Your task to perform on an android device: Open internet settings Image 0: 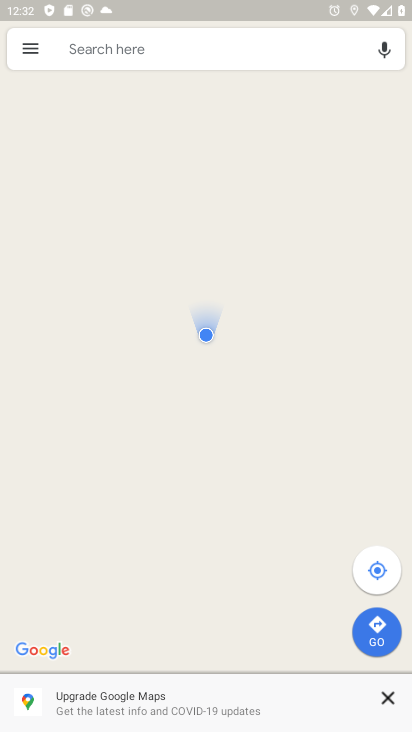
Step 0: press home button
Your task to perform on an android device: Open internet settings Image 1: 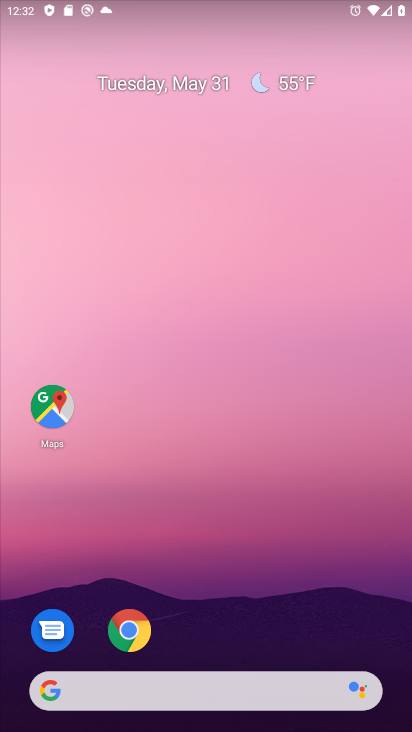
Step 1: drag from (180, 666) to (179, 337)
Your task to perform on an android device: Open internet settings Image 2: 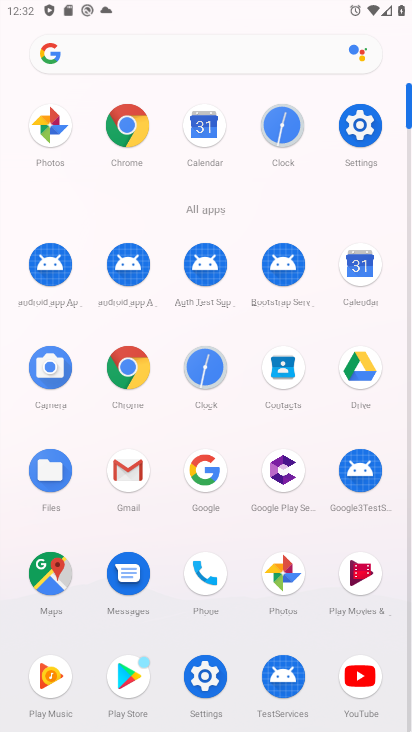
Step 2: click (357, 125)
Your task to perform on an android device: Open internet settings Image 3: 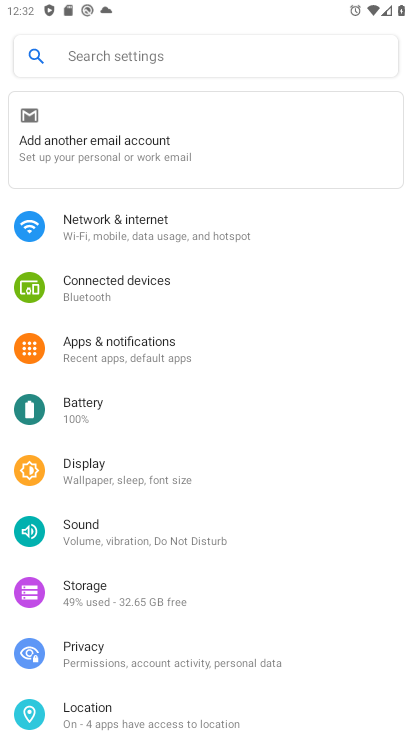
Step 3: click (129, 234)
Your task to perform on an android device: Open internet settings Image 4: 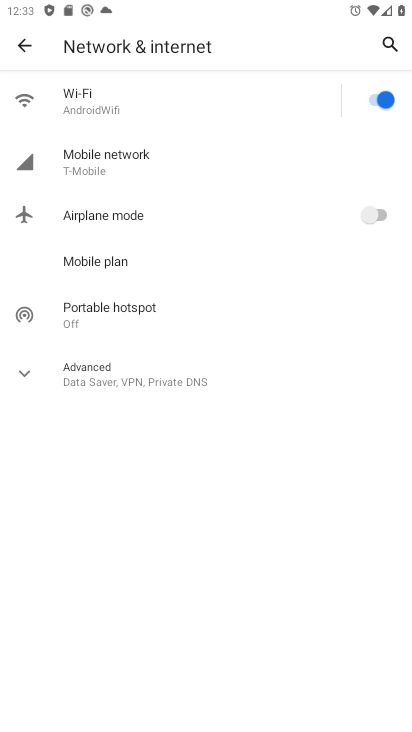
Step 4: click (129, 243)
Your task to perform on an android device: Open internet settings Image 5: 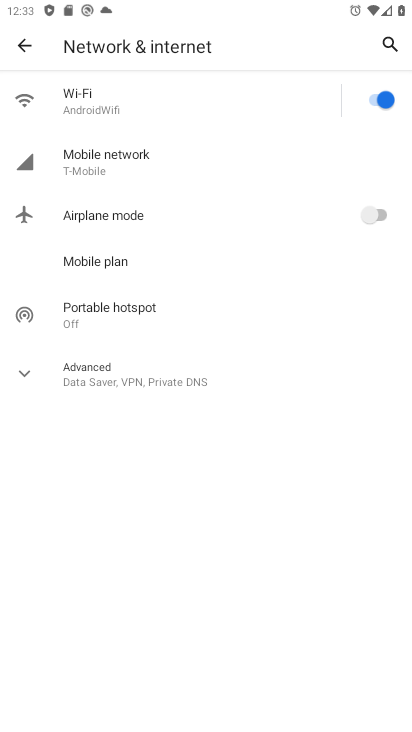
Step 5: click (103, 376)
Your task to perform on an android device: Open internet settings Image 6: 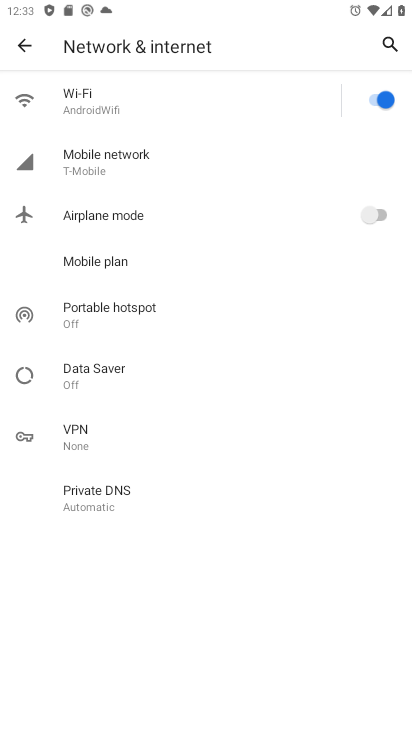
Step 6: task complete